Your task to perform on an android device: check android version Image 0: 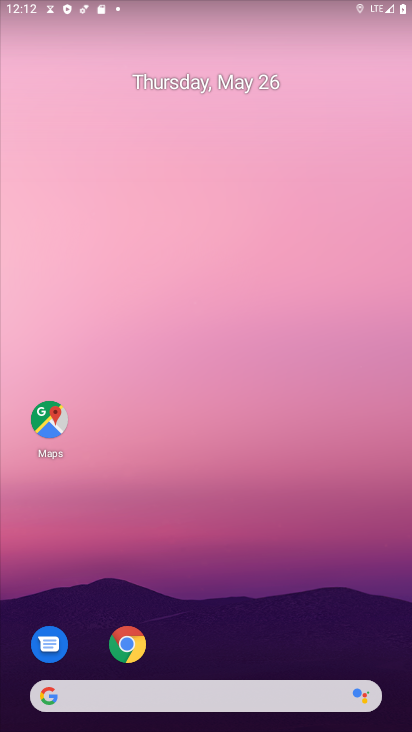
Step 0: drag from (234, 609) to (238, 58)
Your task to perform on an android device: check android version Image 1: 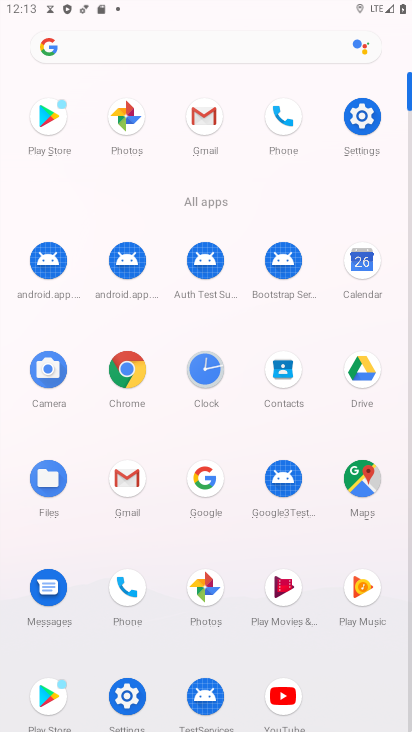
Step 1: click (363, 117)
Your task to perform on an android device: check android version Image 2: 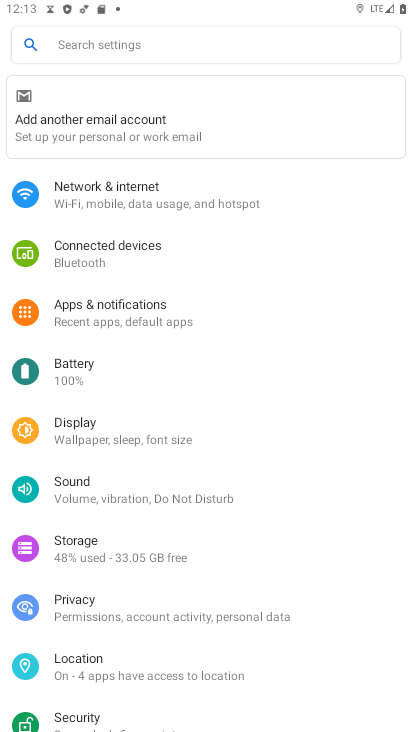
Step 2: drag from (126, 389) to (164, 302)
Your task to perform on an android device: check android version Image 3: 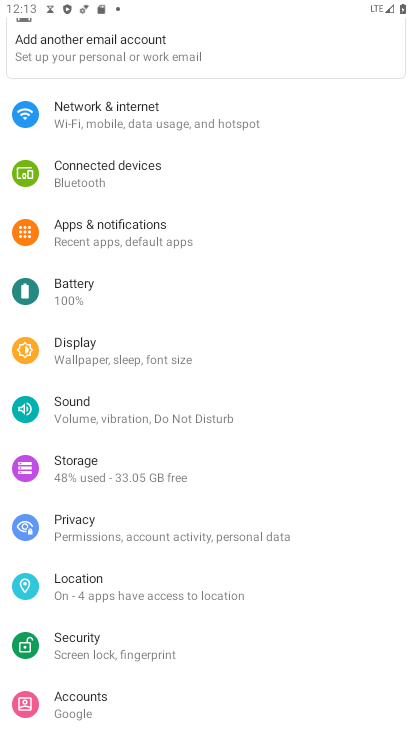
Step 3: drag from (122, 440) to (162, 359)
Your task to perform on an android device: check android version Image 4: 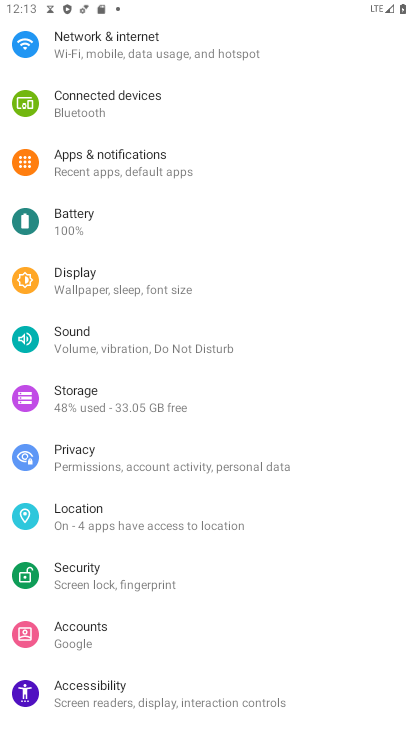
Step 4: drag from (119, 429) to (174, 334)
Your task to perform on an android device: check android version Image 5: 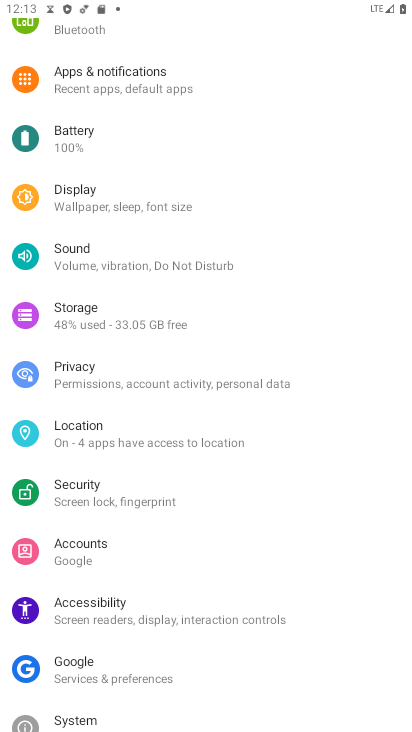
Step 5: drag from (134, 522) to (179, 429)
Your task to perform on an android device: check android version Image 6: 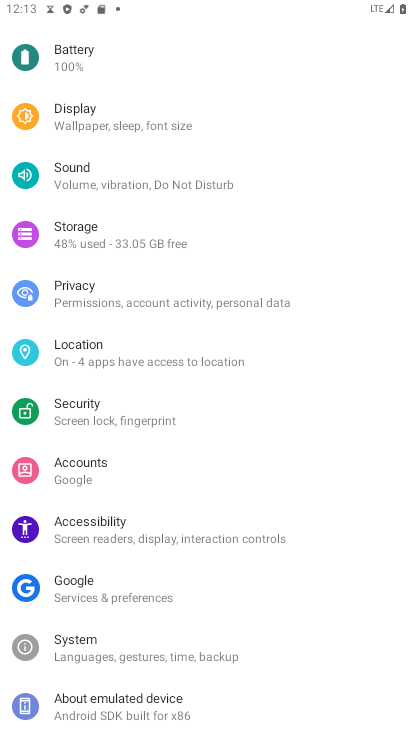
Step 6: drag from (126, 490) to (172, 418)
Your task to perform on an android device: check android version Image 7: 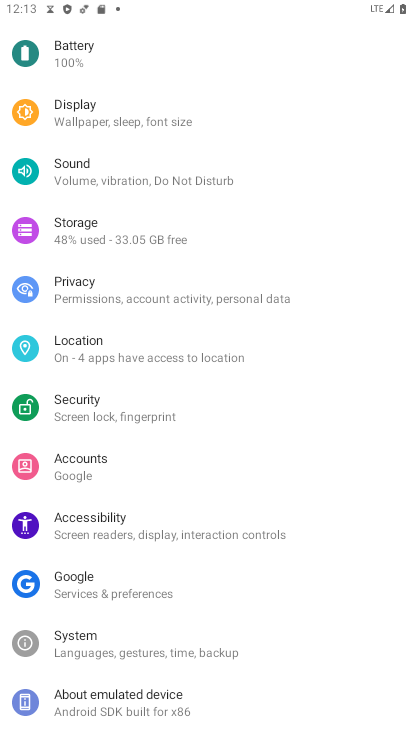
Step 7: click (124, 696)
Your task to perform on an android device: check android version Image 8: 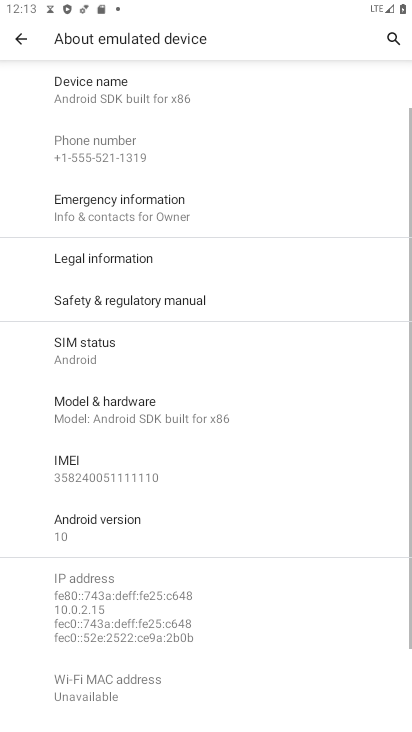
Step 8: click (110, 520)
Your task to perform on an android device: check android version Image 9: 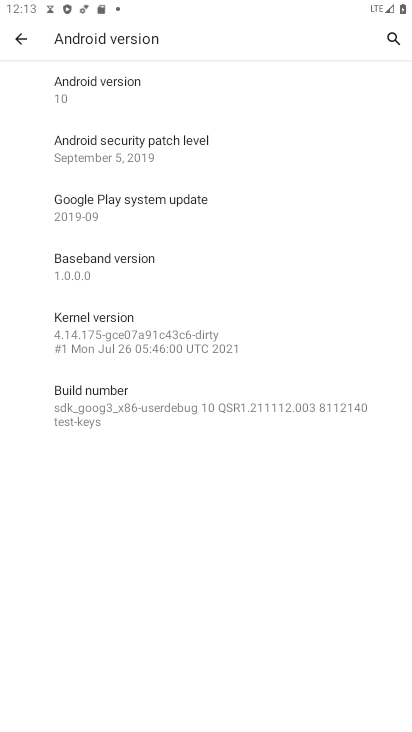
Step 9: task complete